Your task to perform on an android device: Open Youtube and go to "Your channel" Image 0: 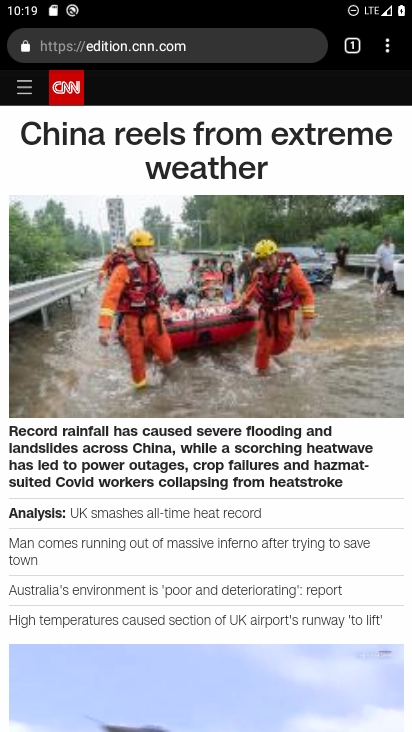
Step 0: press home button
Your task to perform on an android device: Open Youtube and go to "Your channel" Image 1: 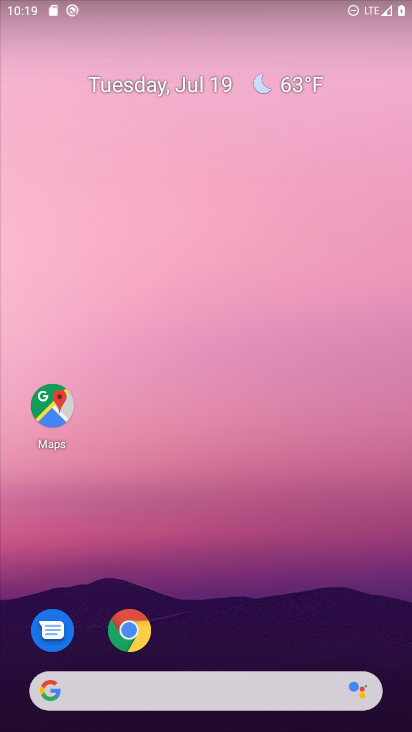
Step 1: drag from (253, 683) to (231, 45)
Your task to perform on an android device: Open Youtube and go to "Your channel" Image 2: 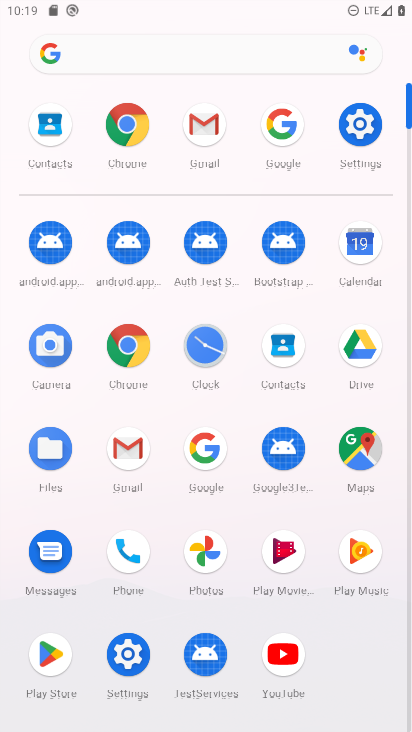
Step 2: click (286, 656)
Your task to perform on an android device: Open Youtube and go to "Your channel" Image 3: 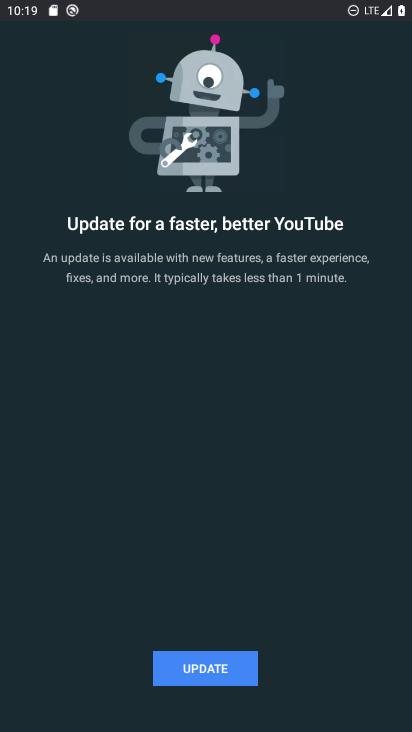
Step 3: click (199, 669)
Your task to perform on an android device: Open Youtube and go to "Your channel" Image 4: 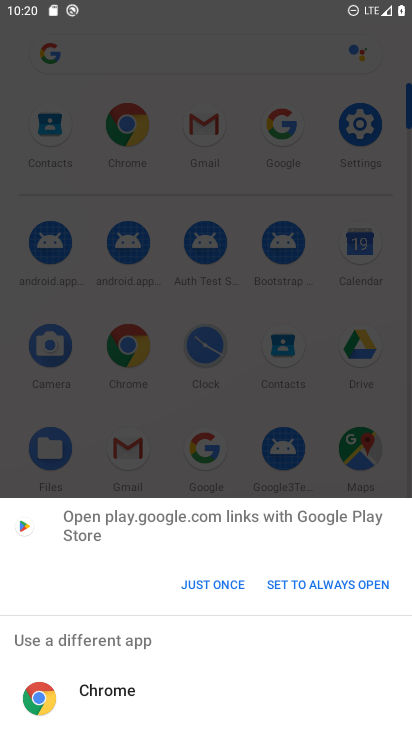
Step 4: click (209, 583)
Your task to perform on an android device: Open Youtube and go to "Your channel" Image 5: 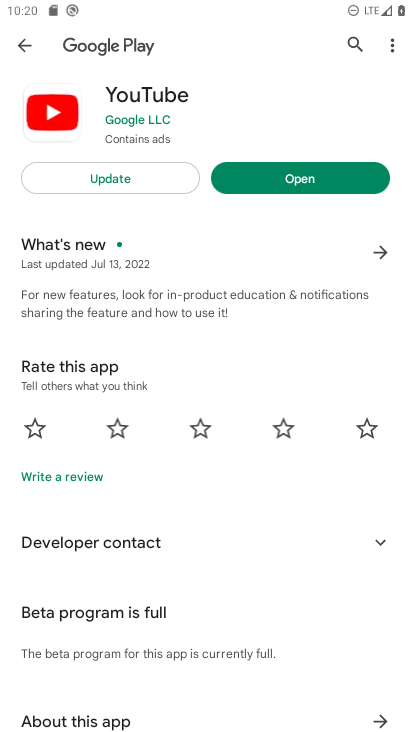
Step 5: click (114, 176)
Your task to perform on an android device: Open Youtube and go to "Your channel" Image 6: 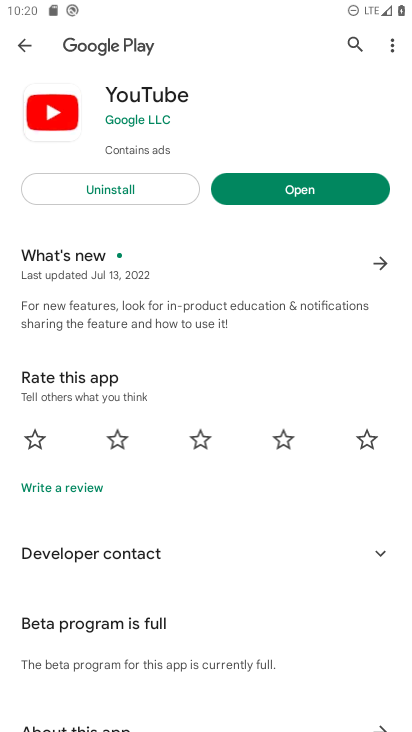
Step 6: click (301, 194)
Your task to perform on an android device: Open Youtube and go to "Your channel" Image 7: 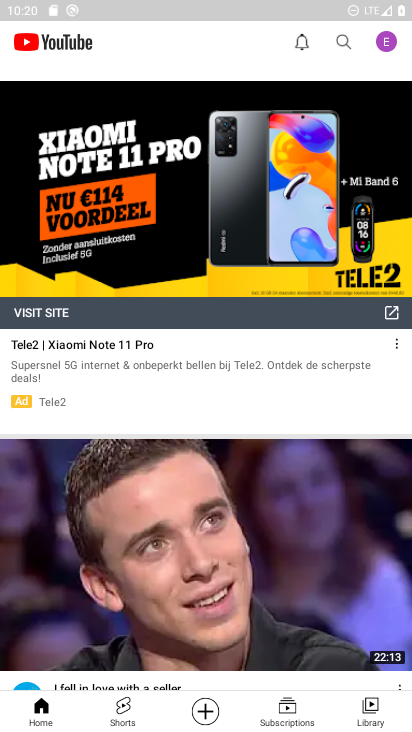
Step 7: click (386, 41)
Your task to perform on an android device: Open Youtube and go to "Your channel" Image 8: 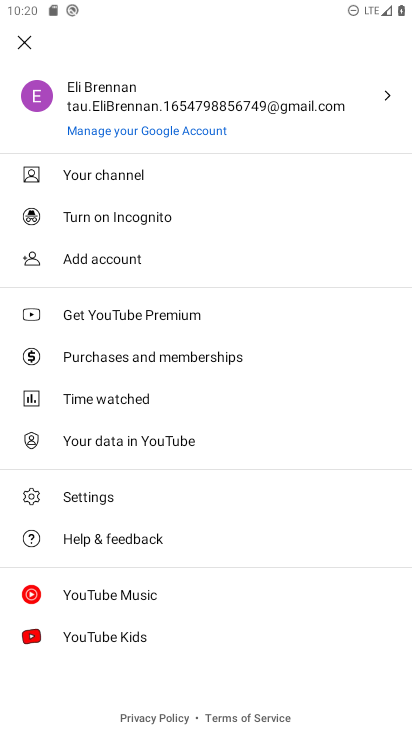
Step 8: click (112, 173)
Your task to perform on an android device: Open Youtube and go to "Your channel" Image 9: 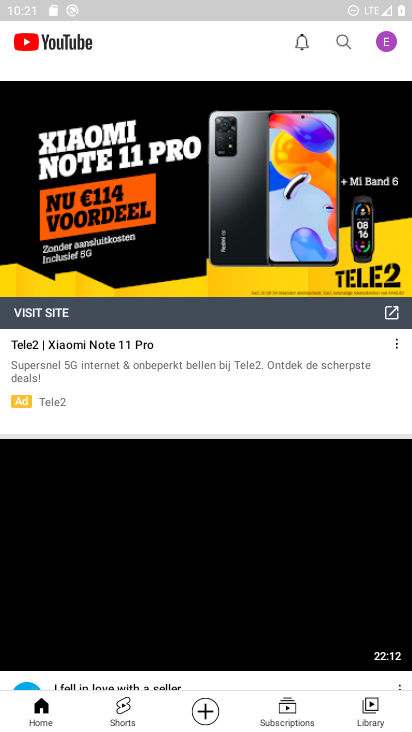
Step 9: task complete